Your task to perform on an android device: find which apps use the phone's location Image 0: 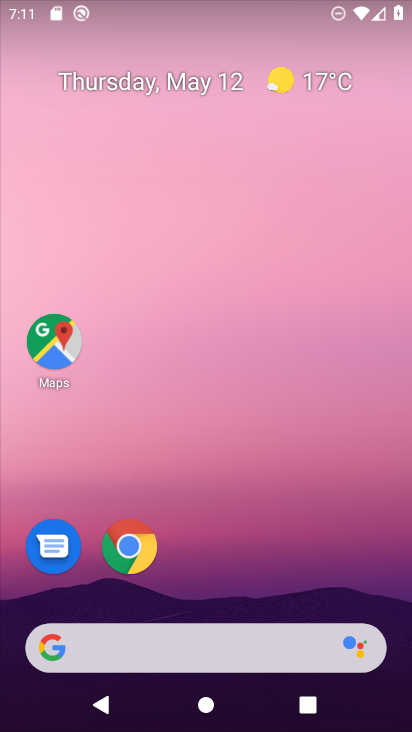
Step 0: drag from (257, 503) to (110, 67)
Your task to perform on an android device: find which apps use the phone's location Image 1: 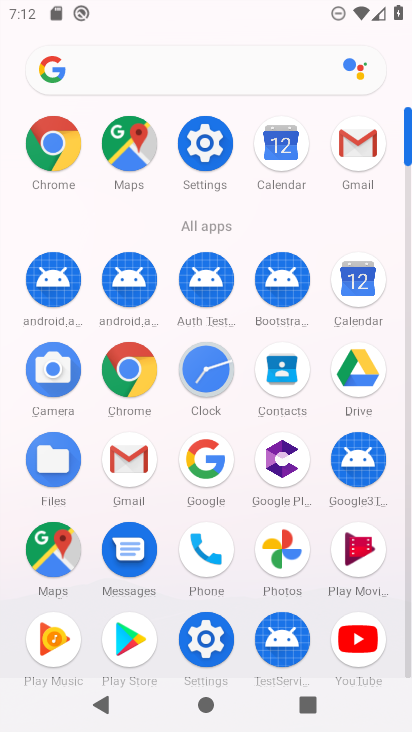
Step 1: click (209, 146)
Your task to perform on an android device: find which apps use the phone's location Image 2: 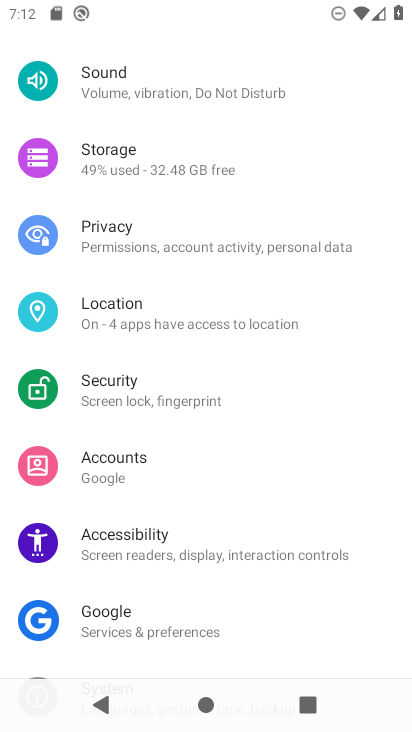
Step 2: click (114, 304)
Your task to perform on an android device: find which apps use the phone's location Image 3: 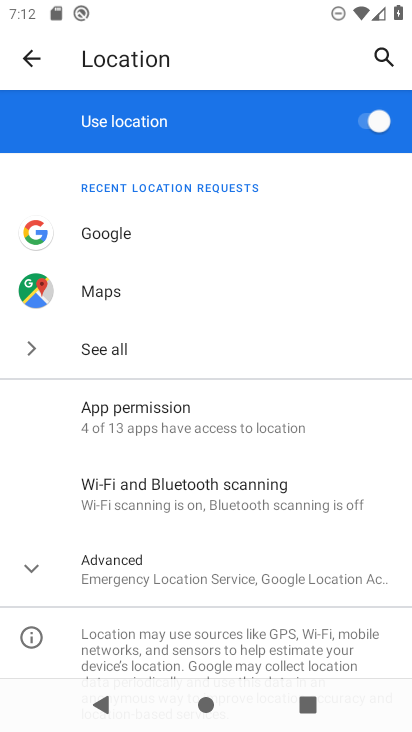
Step 3: click (107, 355)
Your task to perform on an android device: find which apps use the phone's location Image 4: 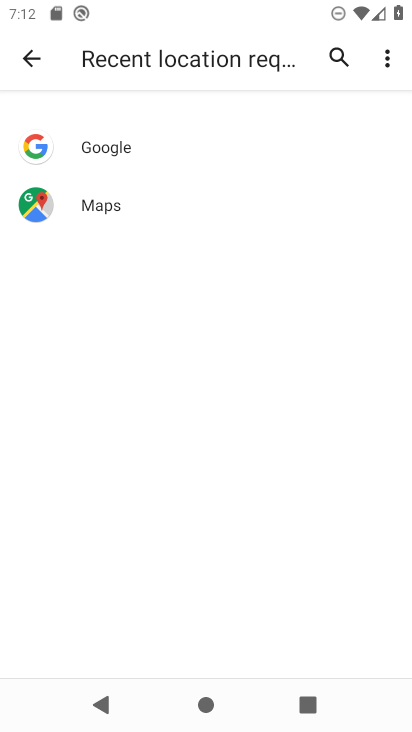
Step 4: task complete